Your task to perform on an android device: turn notification dots on Image 0: 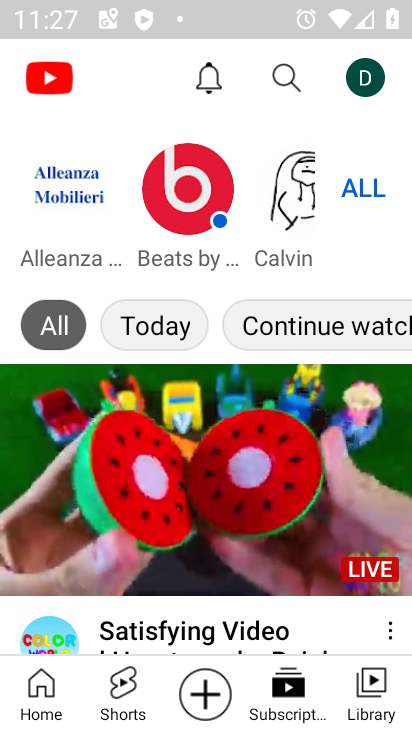
Step 0: press home button
Your task to perform on an android device: turn notification dots on Image 1: 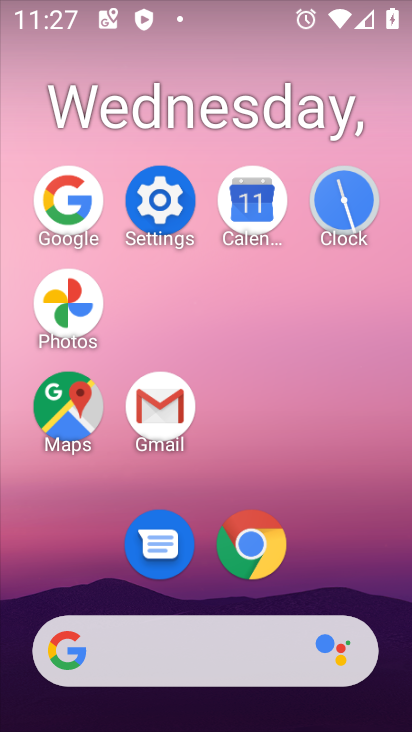
Step 1: click (171, 190)
Your task to perform on an android device: turn notification dots on Image 2: 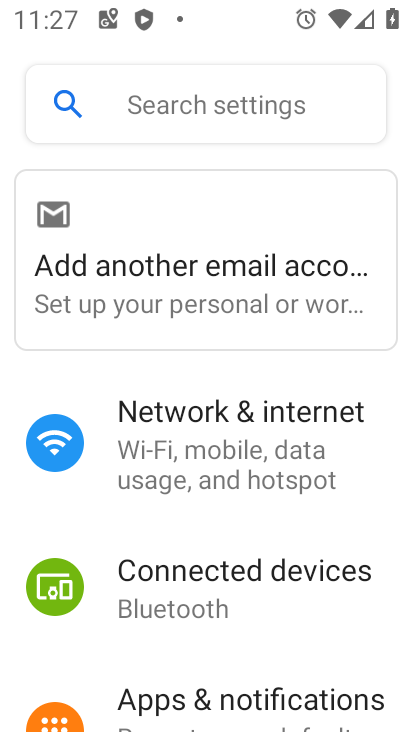
Step 2: click (186, 706)
Your task to perform on an android device: turn notification dots on Image 3: 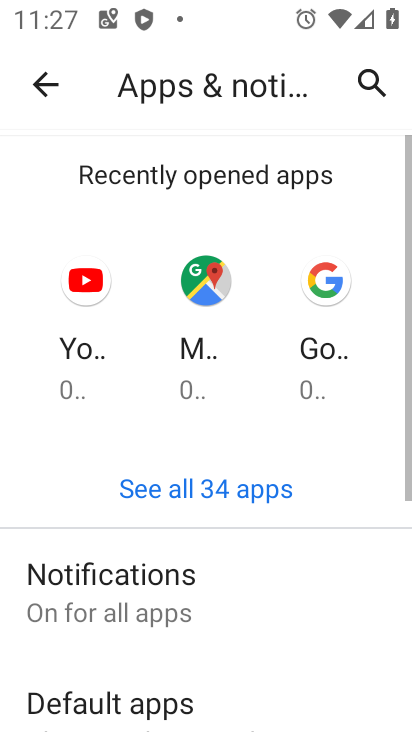
Step 3: click (142, 584)
Your task to perform on an android device: turn notification dots on Image 4: 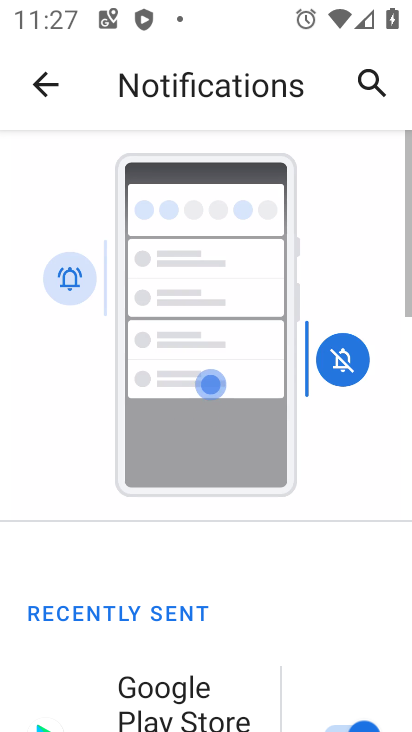
Step 4: click (225, 241)
Your task to perform on an android device: turn notification dots on Image 5: 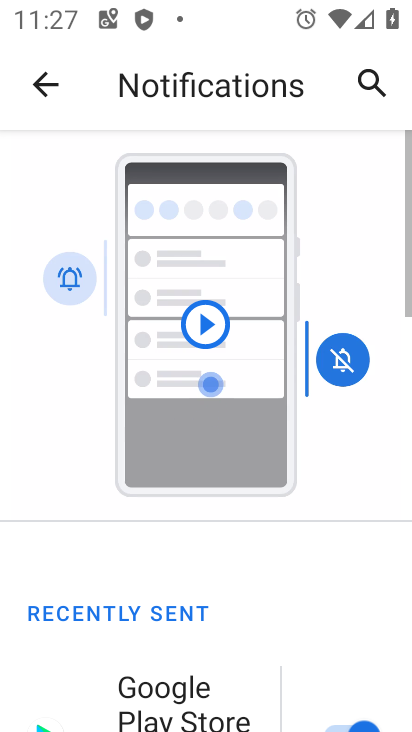
Step 5: drag from (274, 622) to (255, 277)
Your task to perform on an android device: turn notification dots on Image 6: 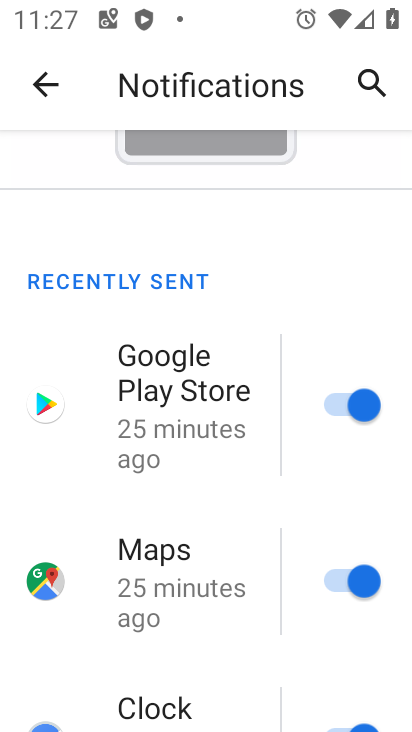
Step 6: drag from (232, 610) to (215, 224)
Your task to perform on an android device: turn notification dots on Image 7: 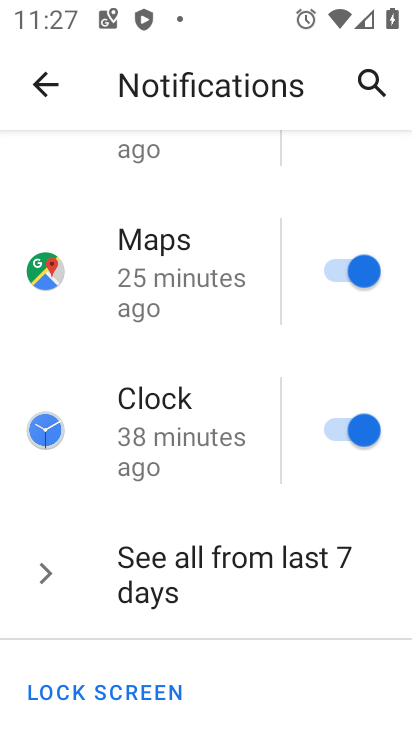
Step 7: drag from (221, 678) to (219, 270)
Your task to perform on an android device: turn notification dots on Image 8: 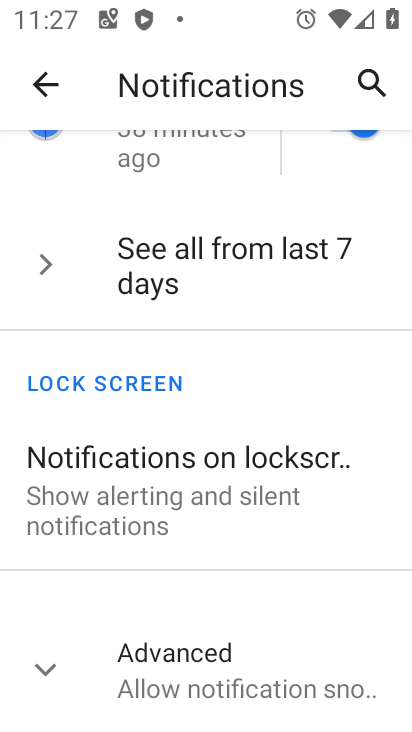
Step 8: click (176, 687)
Your task to perform on an android device: turn notification dots on Image 9: 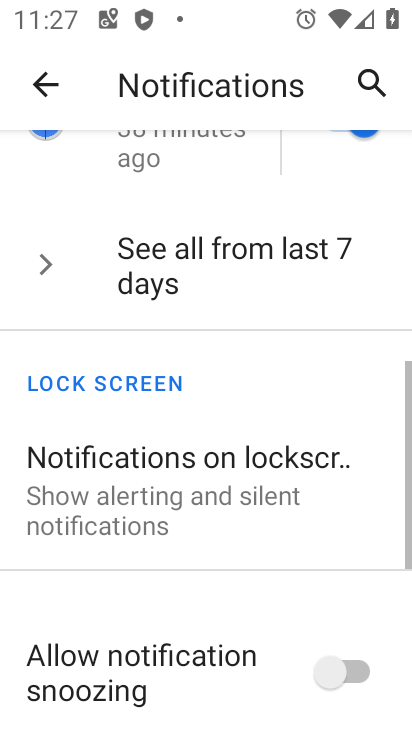
Step 9: task complete